Your task to perform on an android device: turn on the 24-hour format for clock Image 0: 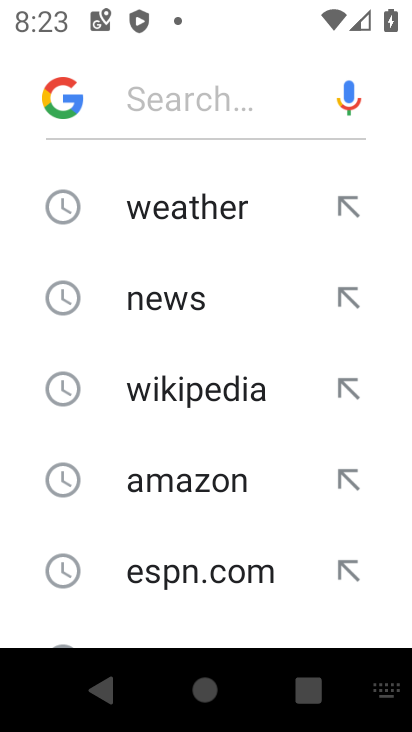
Step 0: click (364, 626)
Your task to perform on an android device: turn on the 24-hour format for clock Image 1: 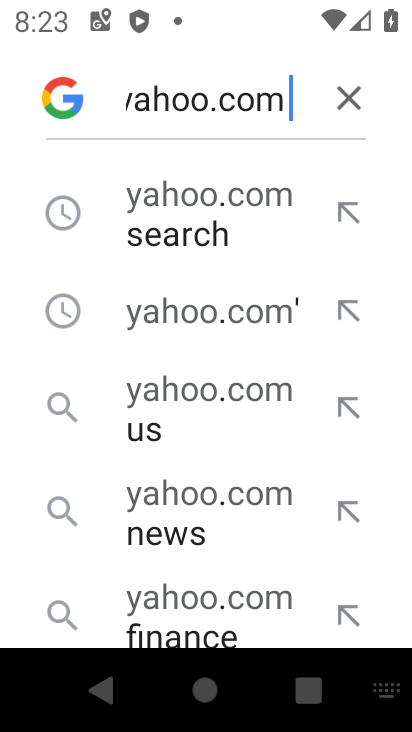
Step 1: press home button
Your task to perform on an android device: turn on the 24-hour format for clock Image 2: 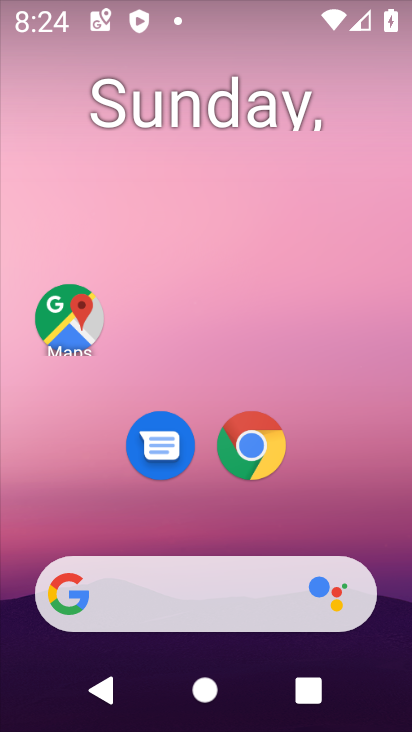
Step 2: drag from (31, 625) to (303, 95)
Your task to perform on an android device: turn on the 24-hour format for clock Image 3: 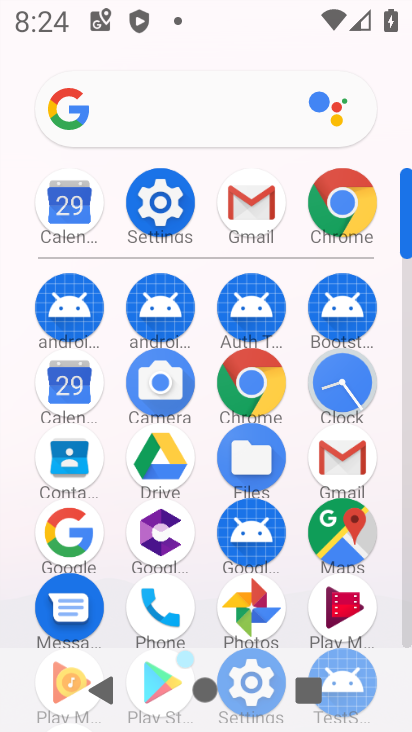
Step 3: click (233, 407)
Your task to perform on an android device: turn on the 24-hour format for clock Image 4: 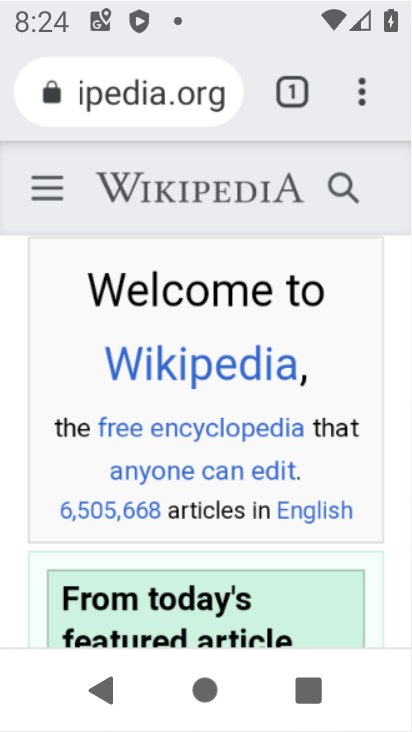
Step 4: click (329, 380)
Your task to perform on an android device: turn on the 24-hour format for clock Image 5: 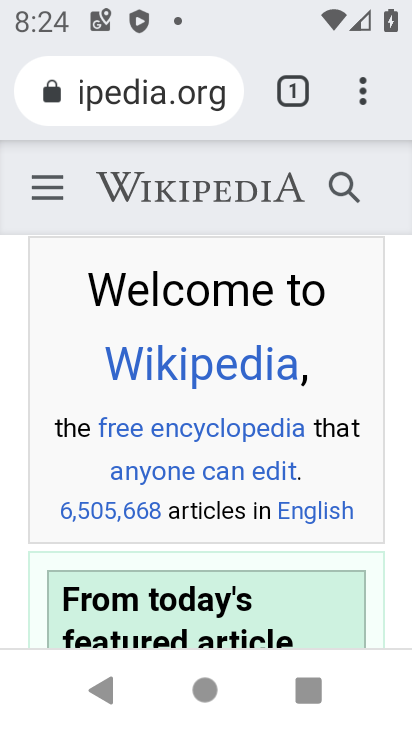
Step 5: press home button
Your task to perform on an android device: turn on the 24-hour format for clock Image 6: 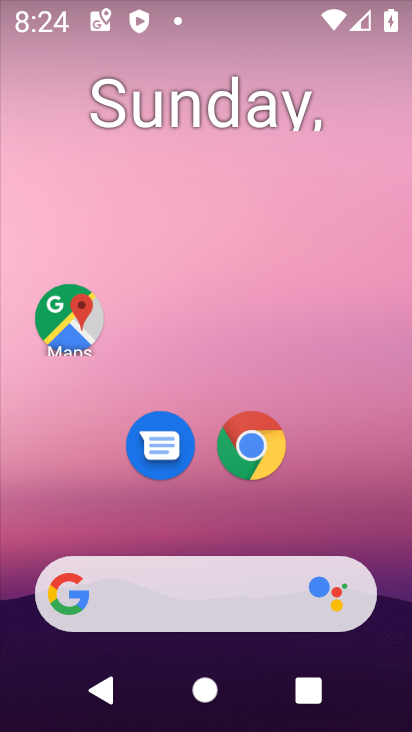
Step 6: drag from (52, 456) to (232, 168)
Your task to perform on an android device: turn on the 24-hour format for clock Image 7: 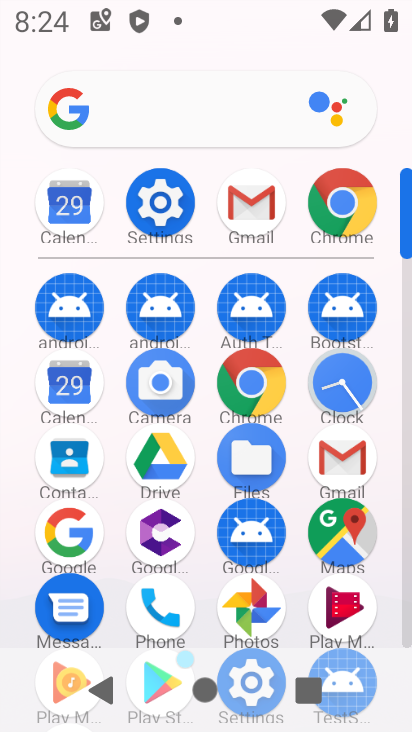
Step 7: click (346, 392)
Your task to perform on an android device: turn on the 24-hour format for clock Image 8: 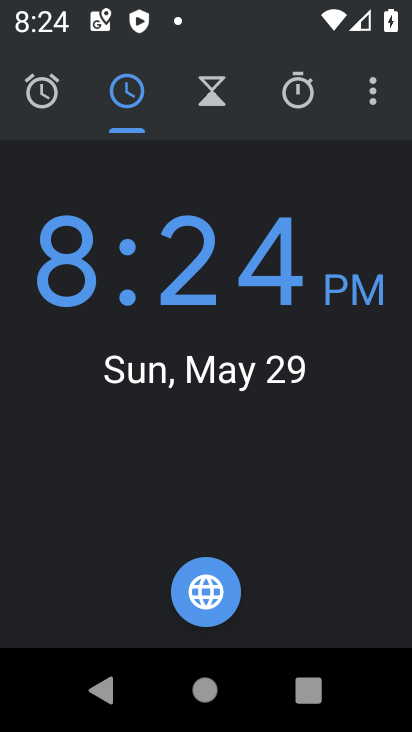
Step 8: click (372, 75)
Your task to perform on an android device: turn on the 24-hour format for clock Image 9: 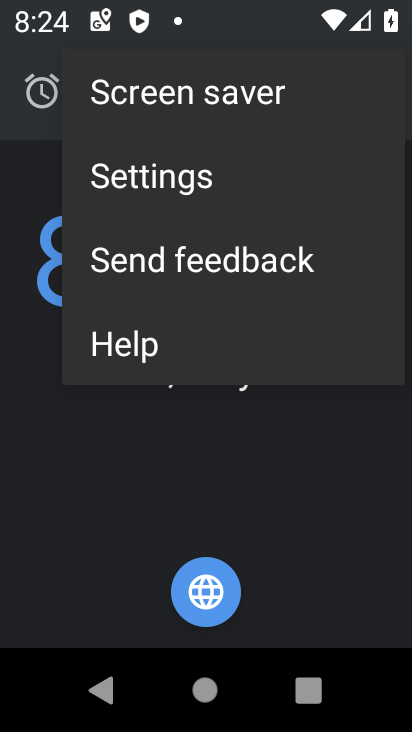
Step 9: click (199, 185)
Your task to perform on an android device: turn on the 24-hour format for clock Image 10: 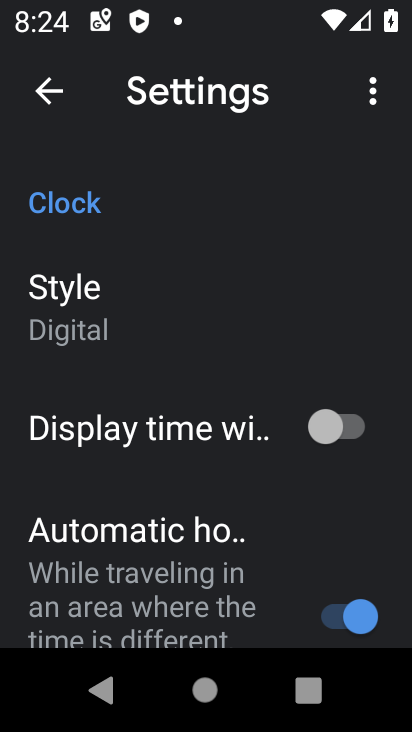
Step 10: drag from (29, 411) to (195, 150)
Your task to perform on an android device: turn on the 24-hour format for clock Image 11: 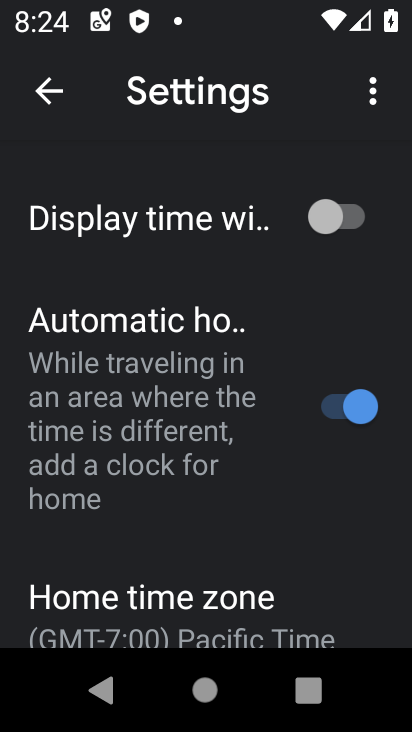
Step 11: drag from (30, 492) to (191, 209)
Your task to perform on an android device: turn on the 24-hour format for clock Image 12: 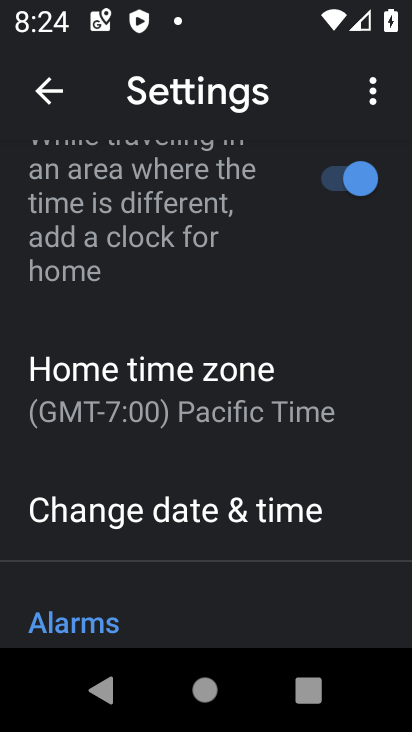
Step 12: click (205, 522)
Your task to perform on an android device: turn on the 24-hour format for clock Image 13: 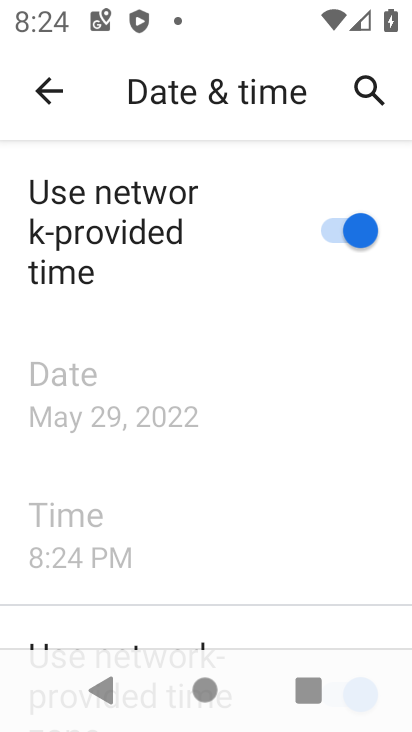
Step 13: drag from (3, 512) to (296, 168)
Your task to perform on an android device: turn on the 24-hour format for clock Image 14: 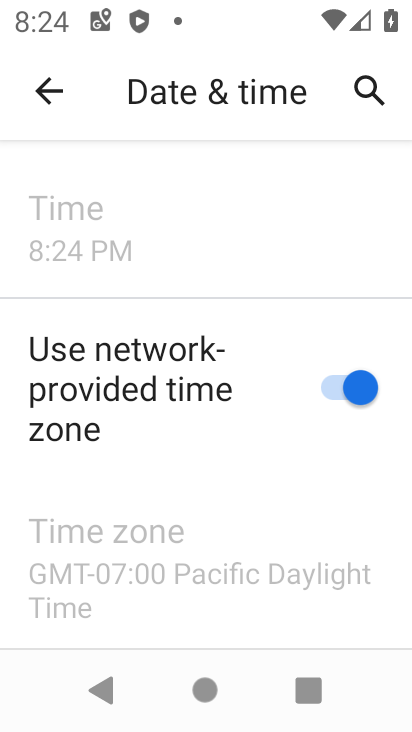
Step 14: drag from (106, 475) to (396, 183)
Your task to perform on an android device: turn on the 24-hour format for clock Image 15: 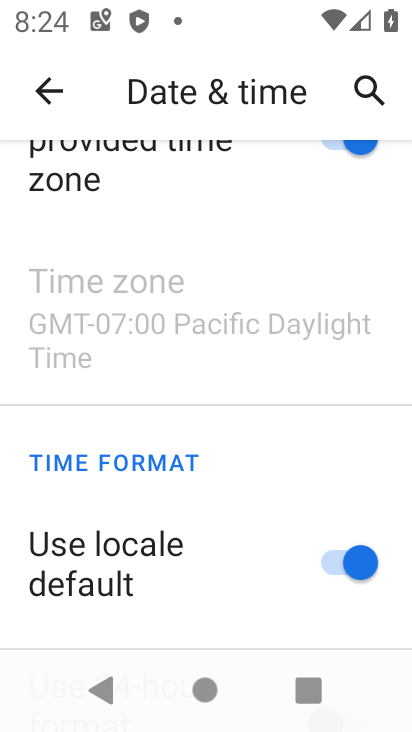
Step 15: drag from (7, 580) to (278, 186)
Your task to perform on an android device: turn on the 24-hour format for clock Image 16: 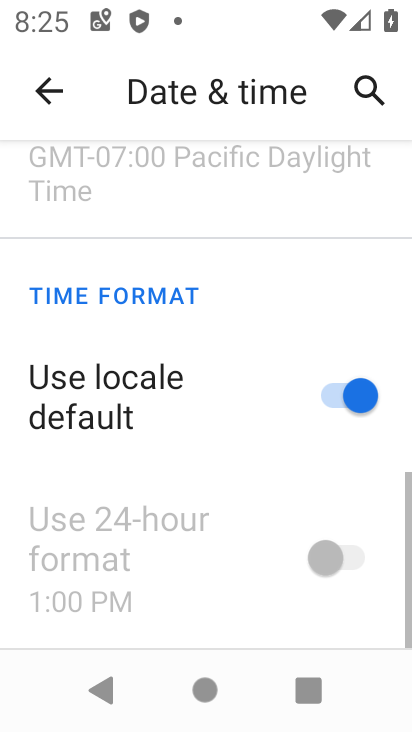
Step 16: click (243, 481)
Your task to perform on an android device: turn on the 24-hour format for clock Image 17: 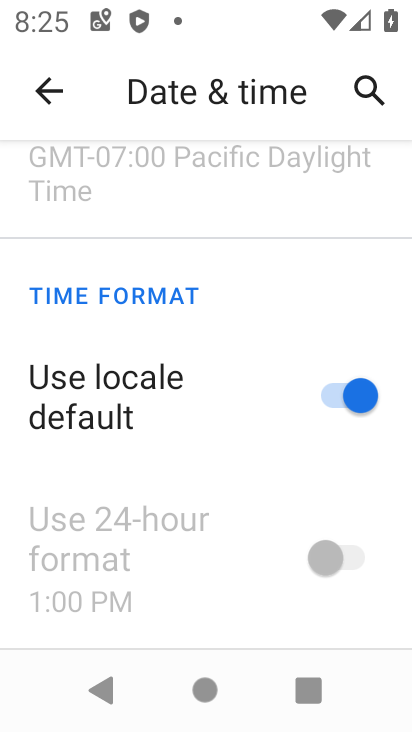
Step 17: click (359, 397)
Your task to perform on an android device: turn on the 24-hour format for clock Image 18: 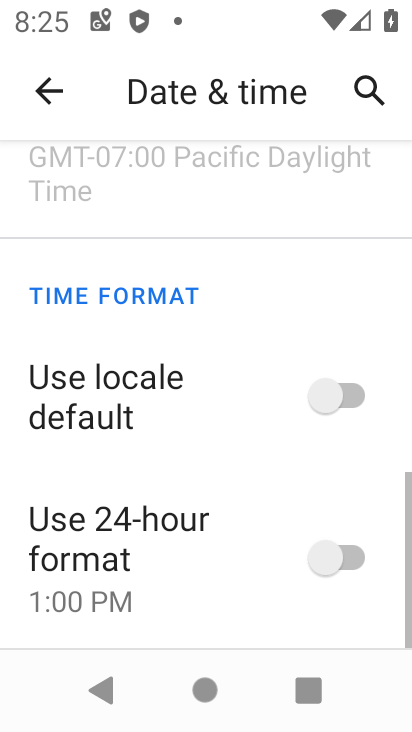
Step 18: click (313, 573)
Your task to perform on an android device: turn on the 24-hour format for clock Image 19: 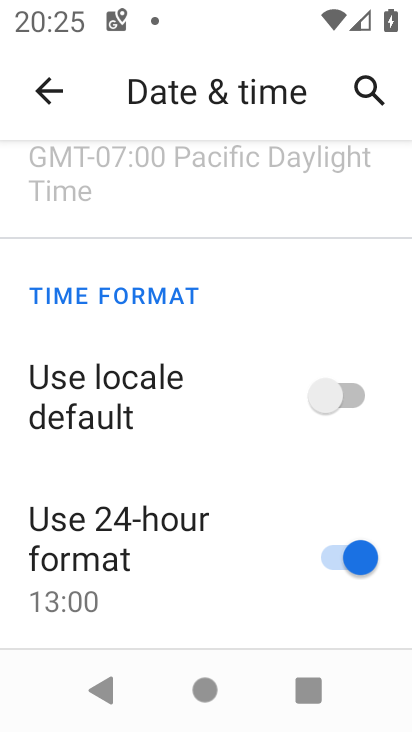
Step 19: task complete